Your task to perform on an android device: Go to sound settings Image 0: 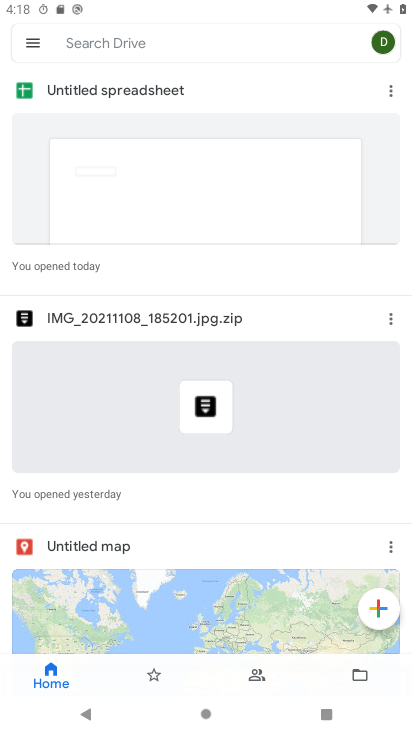
Step 0: press home button
Your task to perform on an android device: Go to sound settings Image 1: 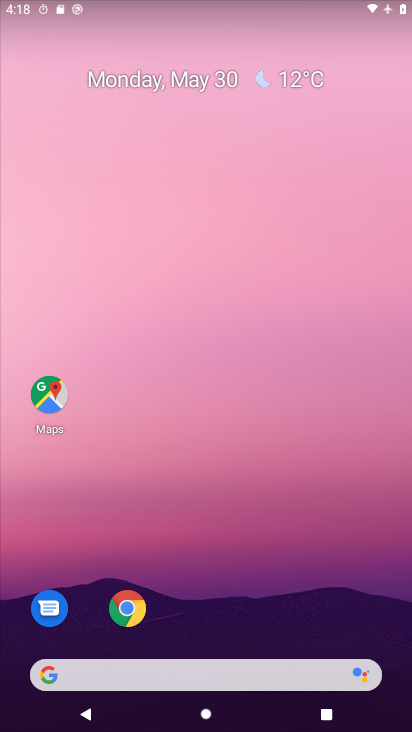
Step 1: drag from (267, 508) to (215, 67)
Your task to perform on an android device: Go to sound settings Image 2: 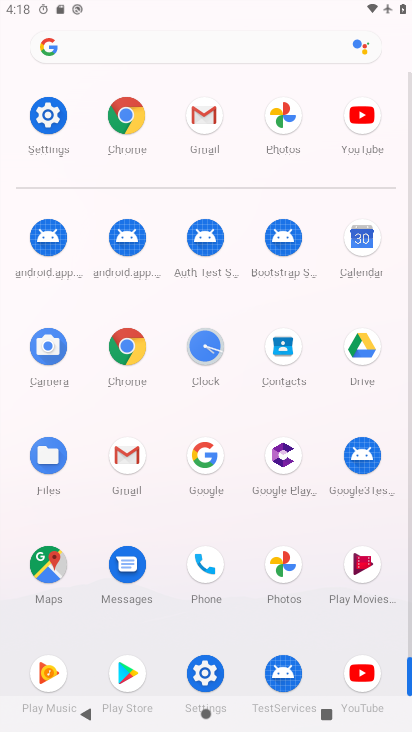
Step 2: click (51, 116)
Your task to perform on an android device: Go to sound settings Image 3: 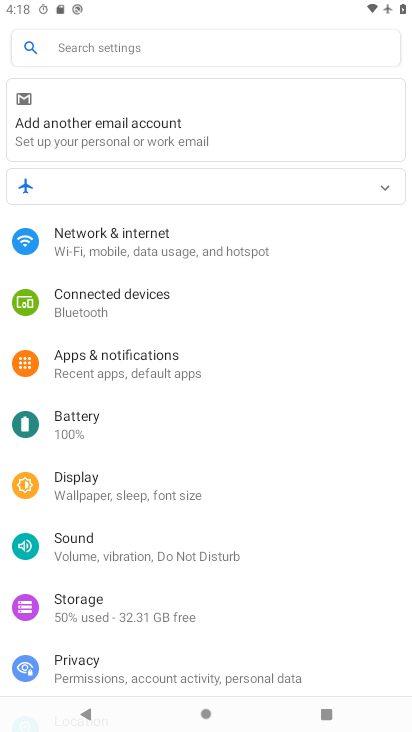
Step 3: click (130, 545)
Your task to perform on an android device: Go to sound settings Image 4: 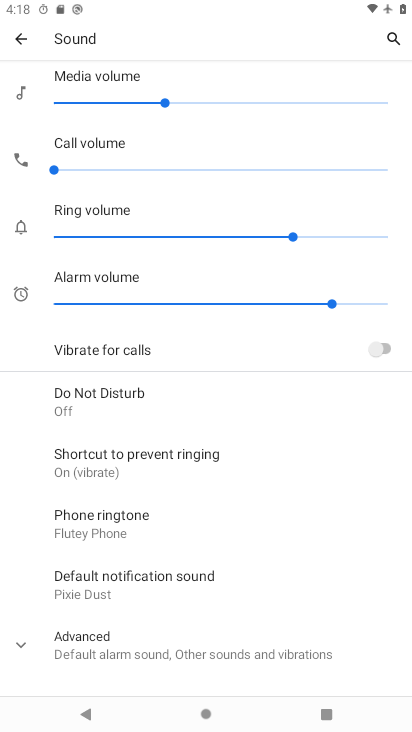
Step 4: task complete